Your task to perform on an android device: turn on javascript in the chrome app Image 0: 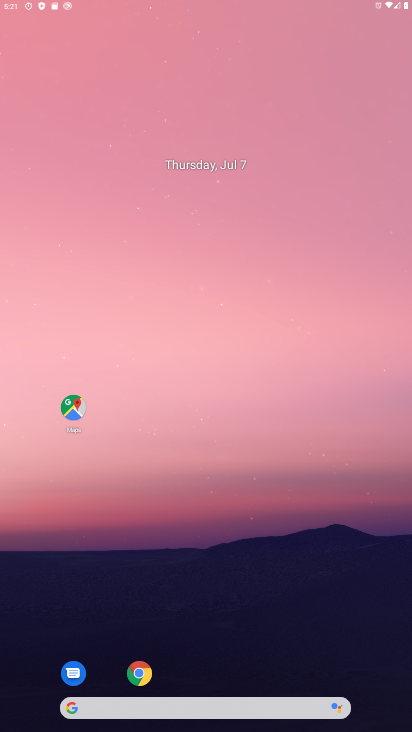
Step 0: click (308, 0)
Your task to perform on an android device: turn on javascript in the chrome app Image 1: 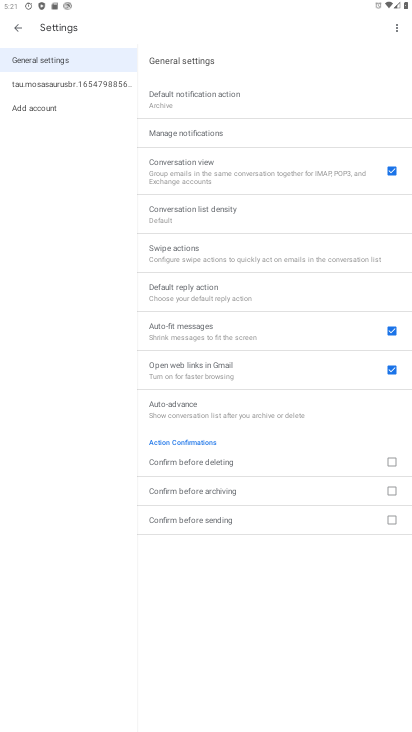
Step 1: press home button
Your task to perform on an android device: turn on javascript in the chrome app Image 2: 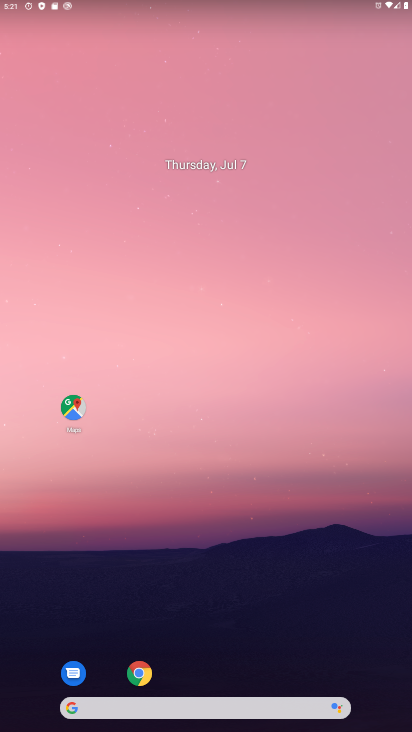
Step 2: drag from (286, 701) to (278, 98)
Your task to perform on an android device: turn on javascript in the chrome app Image 3: 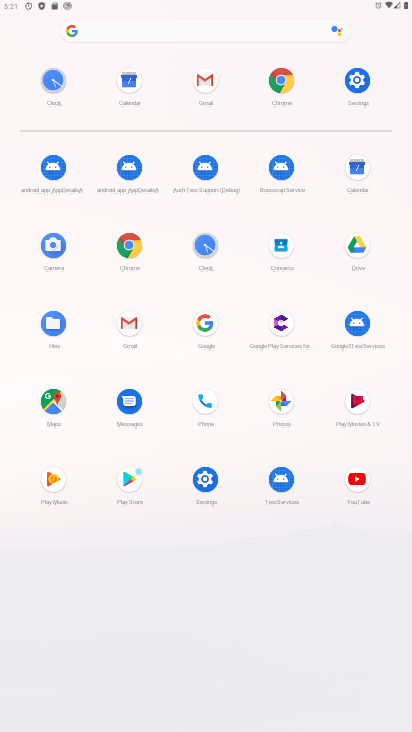
Step 3: click (136, 250)
Your task to perform on an android device: turn on javascript in the chrome app Image 4: 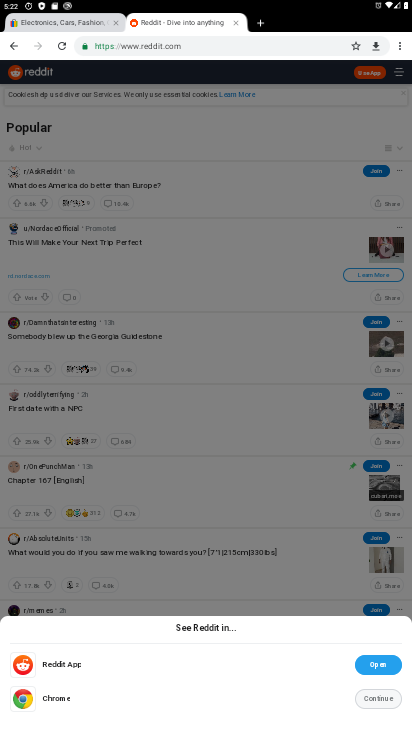
Step 4: click (398, 45)
Your task to perform on an android device: turn on javascript in the chrome app Image 5: 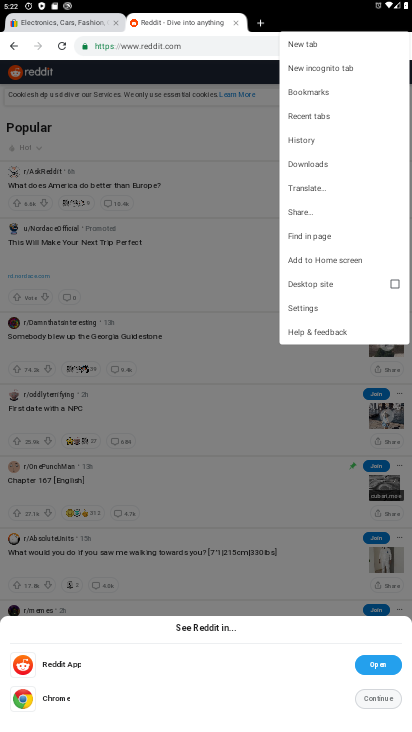
Step 5: click (321, 311)
Your task to perform on an android device: turn on javascript in the chrome app Image 6: 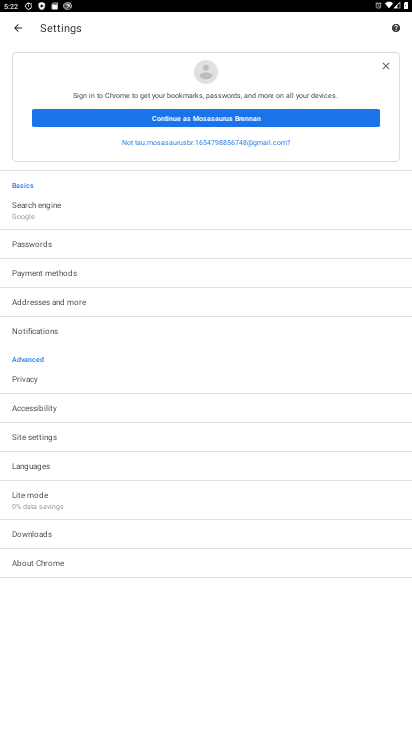
Step 6: click (43, 442)
Your task to perform on an android device: turn on javascript in the chrome app Image 7: 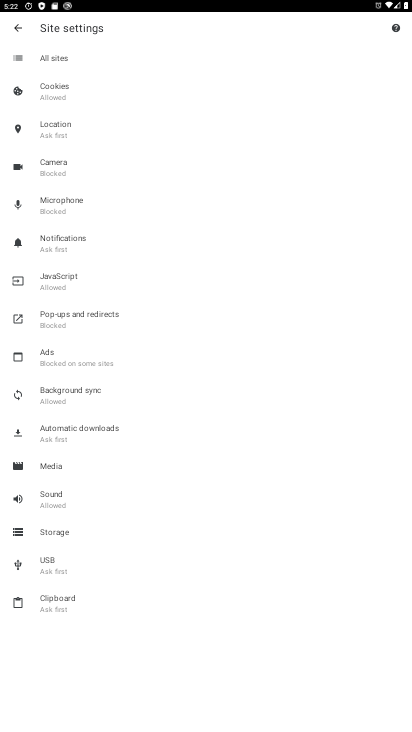
Step 7: click (68, 278)
Your task to perform on an android device: turn on javascript in the chrome app Image 8: 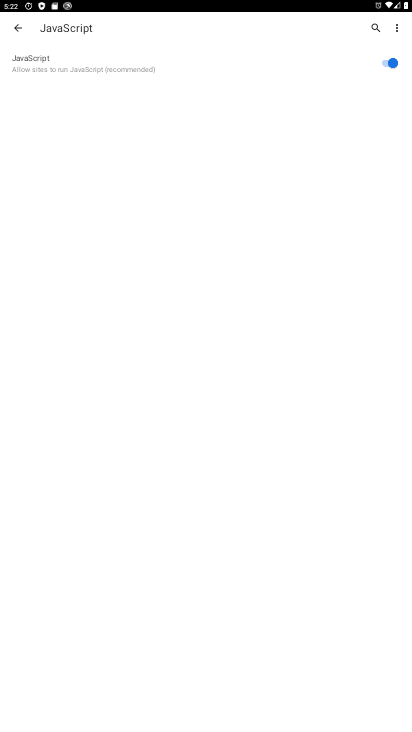
Step 8: task complete